Your task to perform on an android device: open chrome privacy settings Image 0: 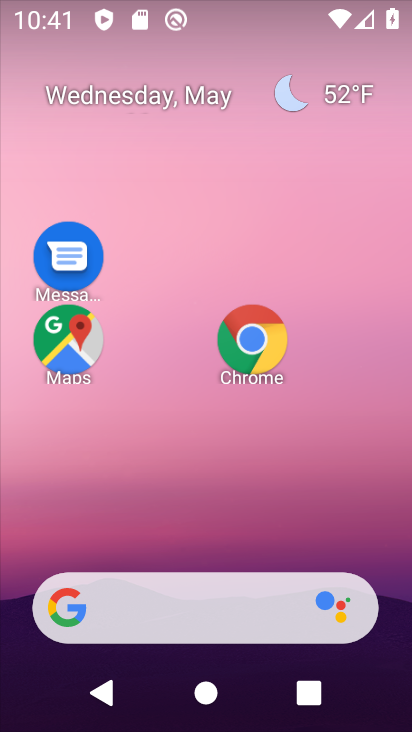
Step 0: click (254, 328)
Your task to perform on an android device: open chrome privacy settings Image 1: 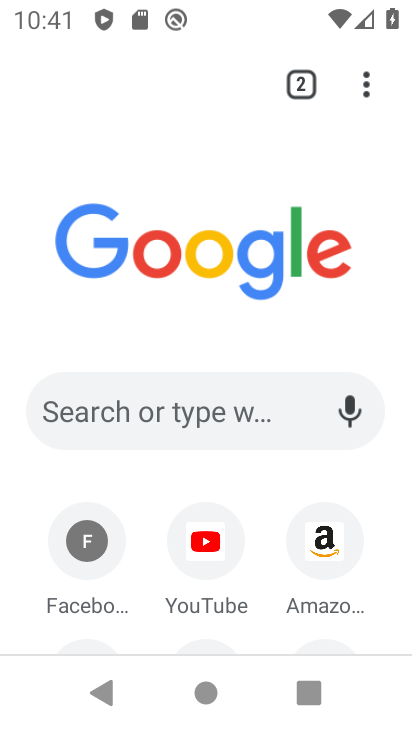
Step 1: click (359, 93)
Your task to perform on an android device: open chrome privacy settings Image 2: 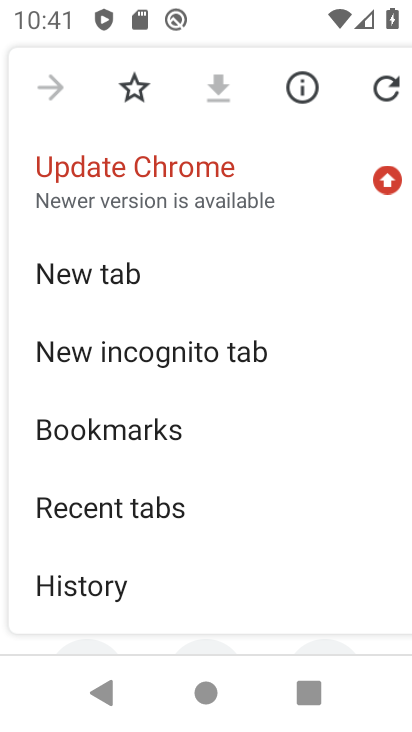
Step 2: drag from (237, 540) to (234, 25)
Your task to perform on an android device: open chrome privacy settings Image 3: 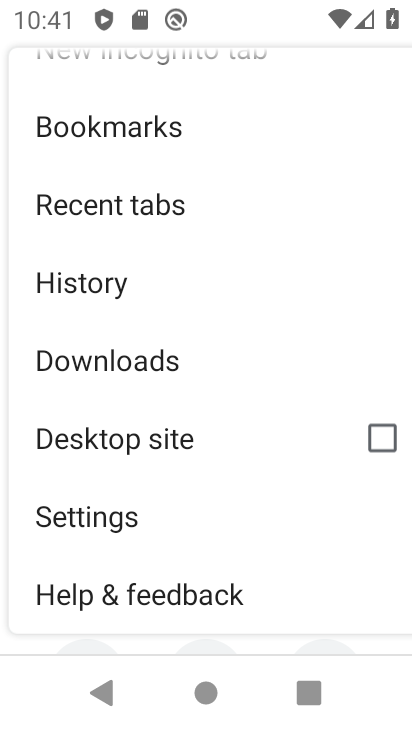
Step 3: click (161, 512)
Your task to perform on an android device: open chrome privacy settings Image 4: 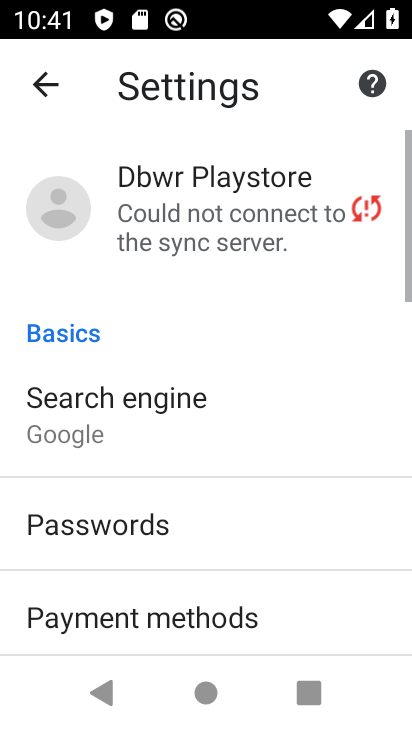
Step 4: drag from (208, 517) to (220, 79)
Your task to perform on an android device: open chrome privacy settings Image 5: 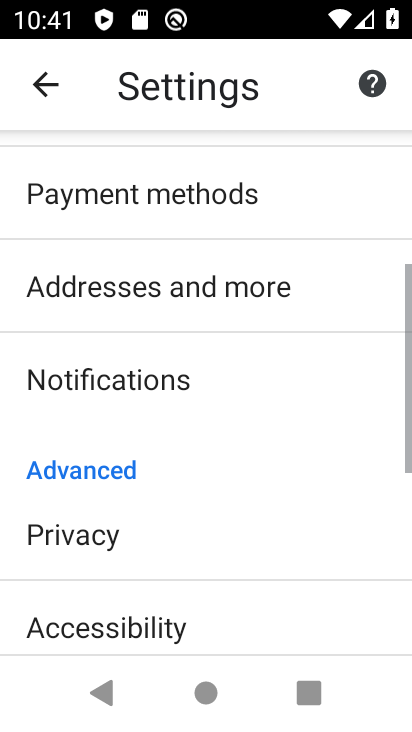
Step 5: drag from (208, 581) to (200, 440)
Your task to perform on an android device: open chrome privacy settings Image 6: 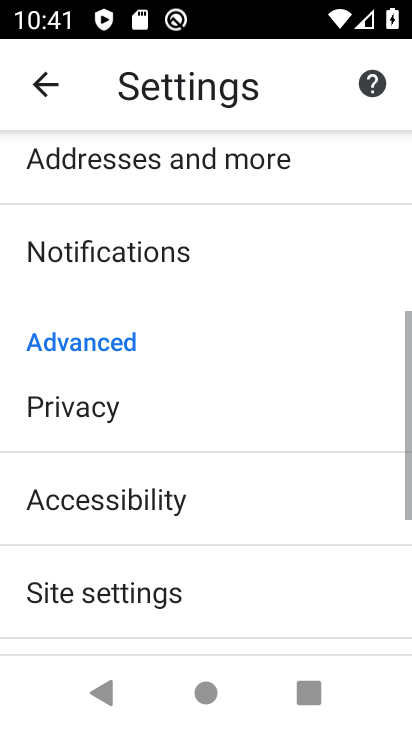
Step 6: click (79, 412)
Your task to perform on an android device: open chrome privacy settings Image 7: 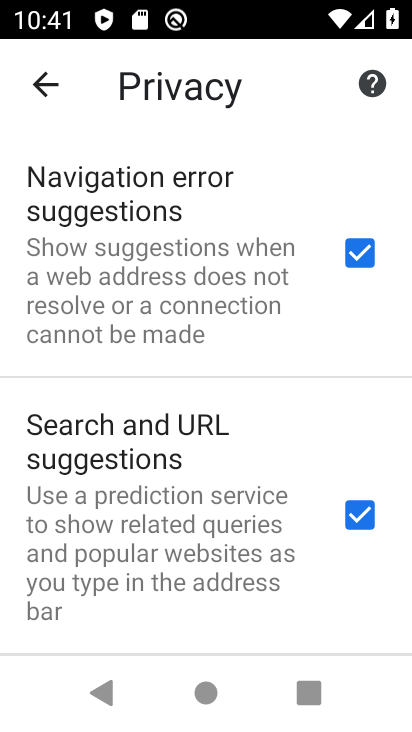
Step 7: task complete